Your task to perform on an android device: Open the web browser Image 0: 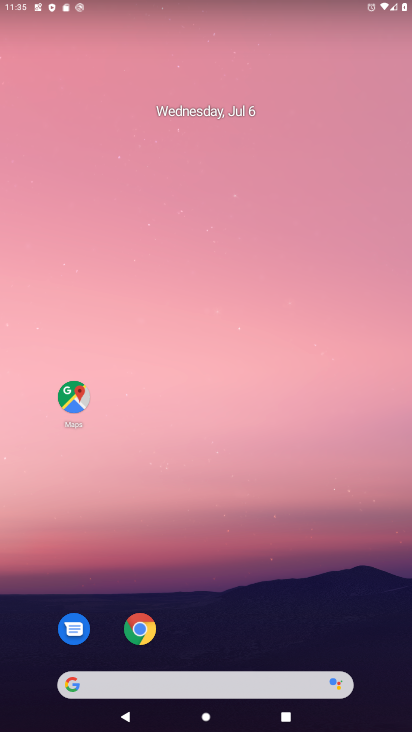
Step 0: click (144, 629)
Your task to perform on an android device: Open the web browser Image 1: 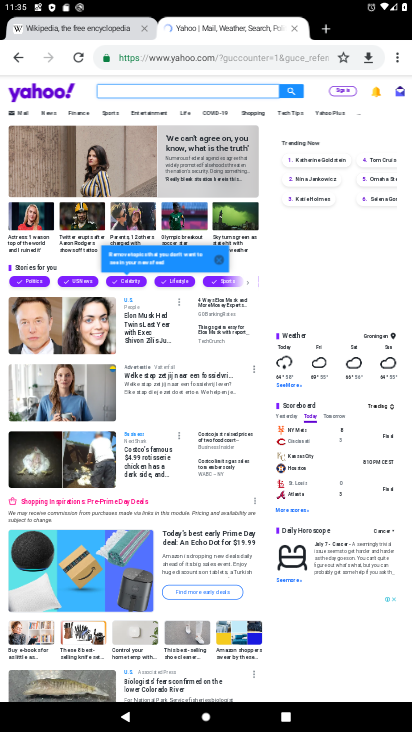
Step 1: task complete